Your task to perform on an android device: Open battery settings Image 0: 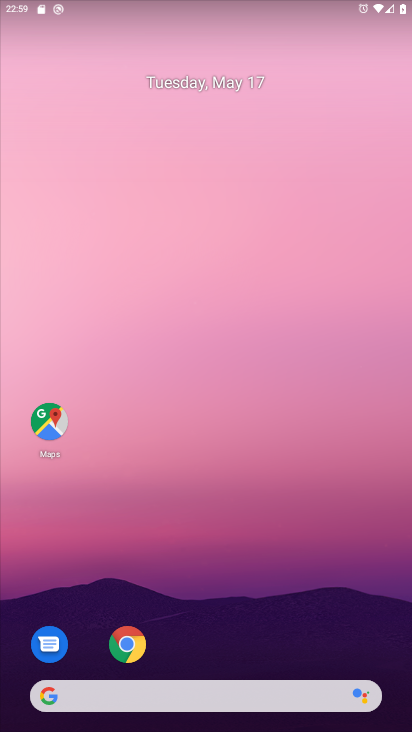
Step 0: drag from (209, 659) to (238, 35)
Your task to perform on an android device: Open battery settings Image 1: 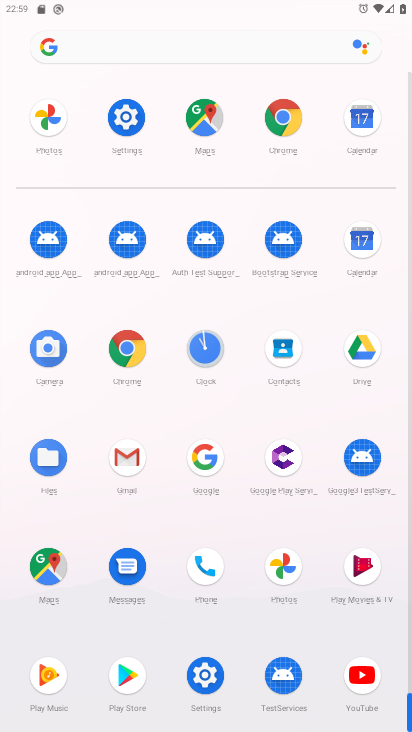
Step 1: click (128, 109)
Your task to perform on an android device: Open battery settings Image 2: 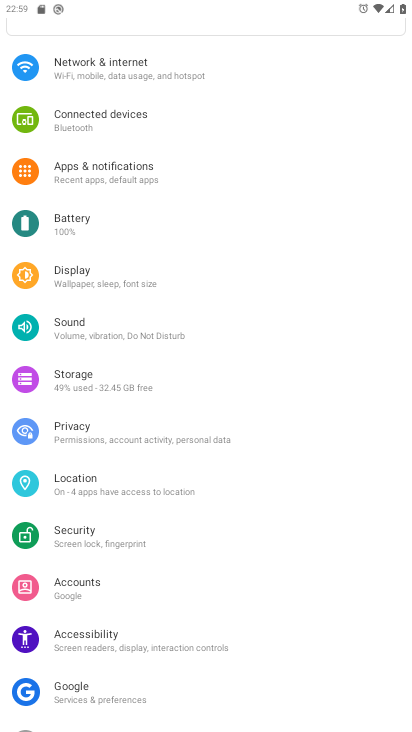
Step 2: click (98, 223)
Your task to perform on an android device: Open battery settings Image 3: 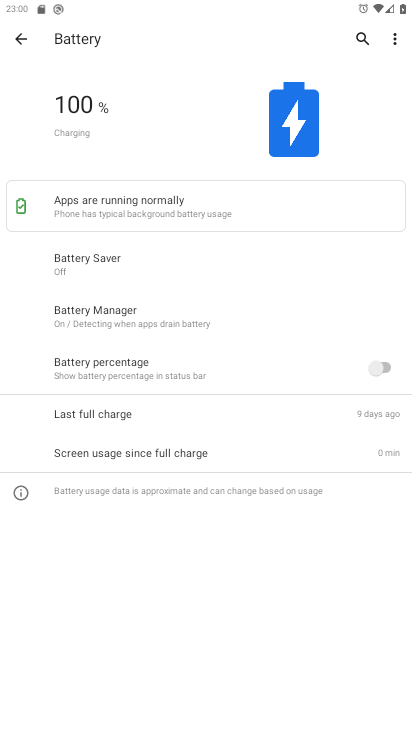
Step 3: task complete